Your task to perform on an android device: Go to battery settings Image 0: 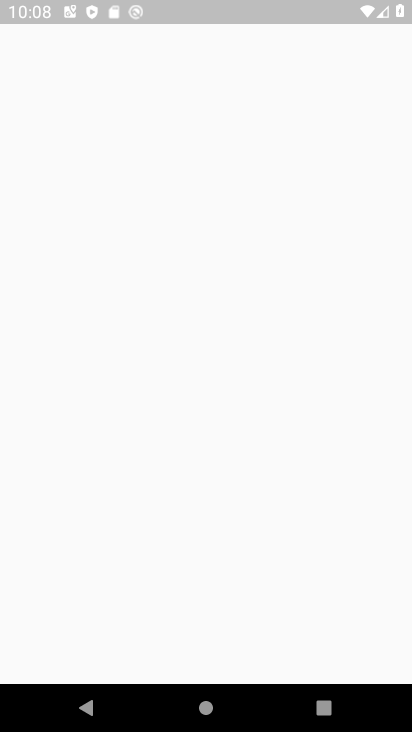
Step 0: drag from (363, 427) to (346, 317)
Your task to perform on an android device: Go to battery settings Image 1: 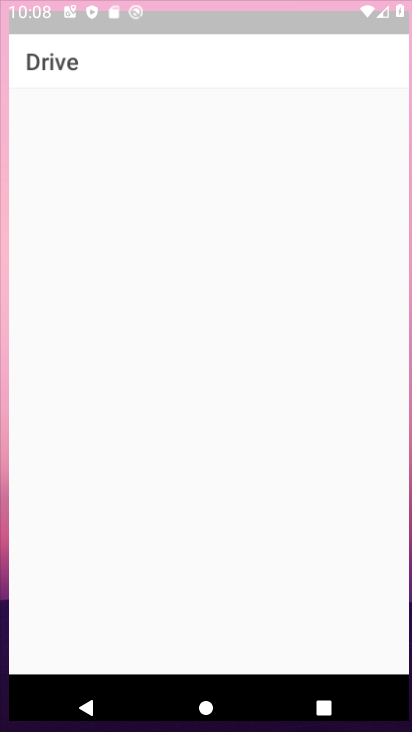
Step 1: press home button
Your task to perform on an android device: Go to battery settings Image 2: 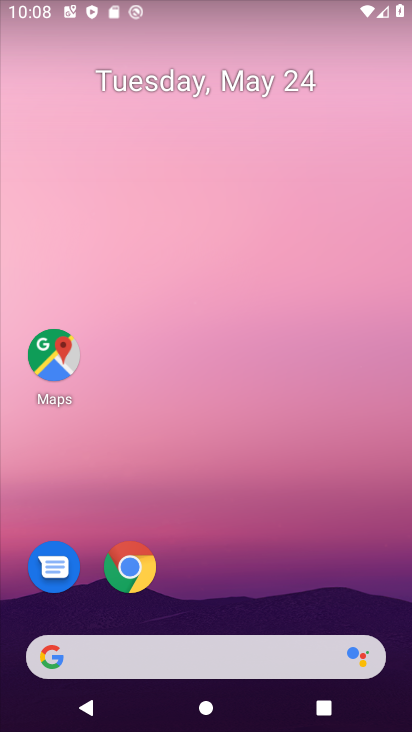
Step 2: drag from (397, 698) to (352, 340)
Your task to perform on an android device: Go to battery settings Image 3: 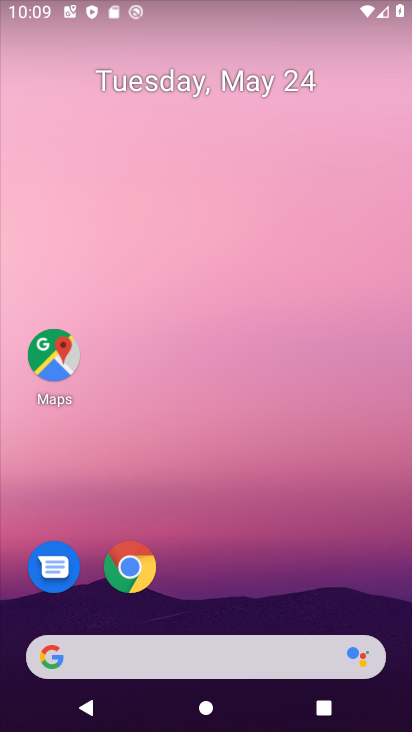
Step 3: drag from (386, 612) to (350, 206)
Your task to perform on an android device: Go to battery settings Image 4: 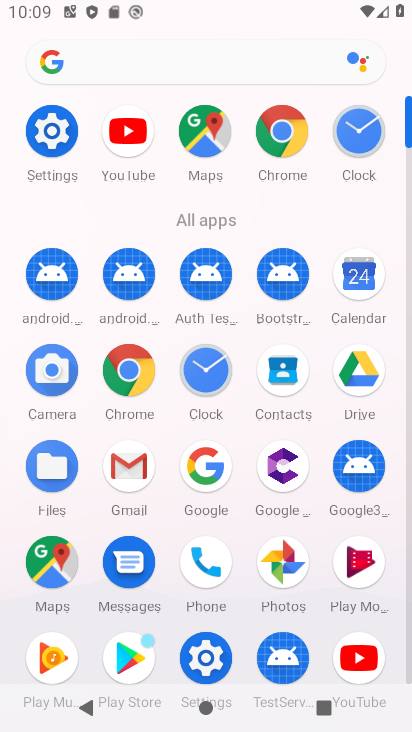
Step 4: click (39, 127)
Your task to perform on an android device: Go to battery settings Image 5: 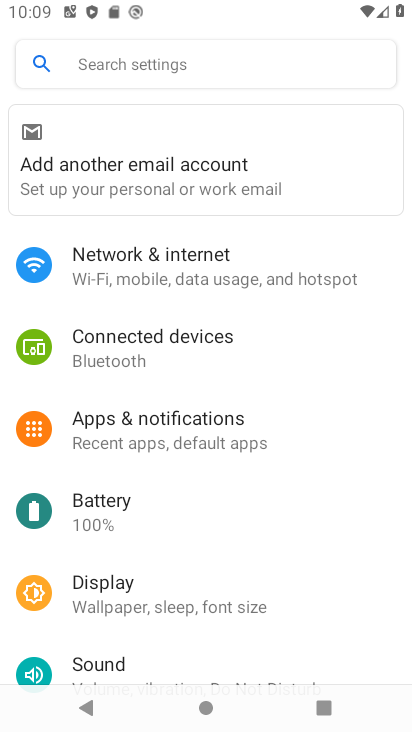
Step 5: click (89, 508)
Your task to perform on an android device: Go to battery settings Image 6: 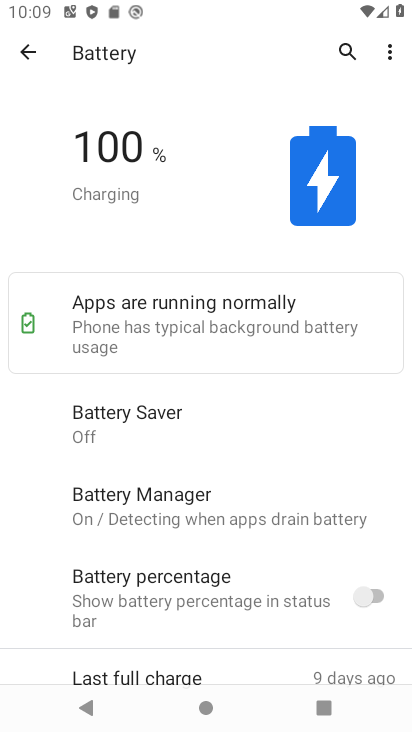
Step 6: task complete